Your task to perform on an android device: visit the assistant section in the google photos Image 0: 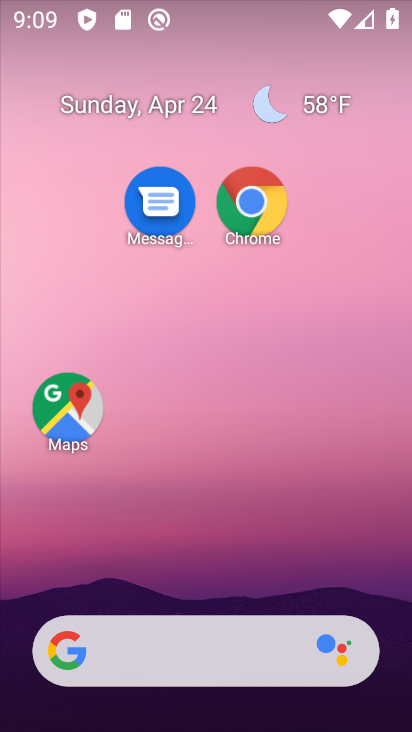
Step 0: drag from (225, 707) to (220, 115)
Your task to perform on an android device: visit the assistant section in the google photos Image 1: 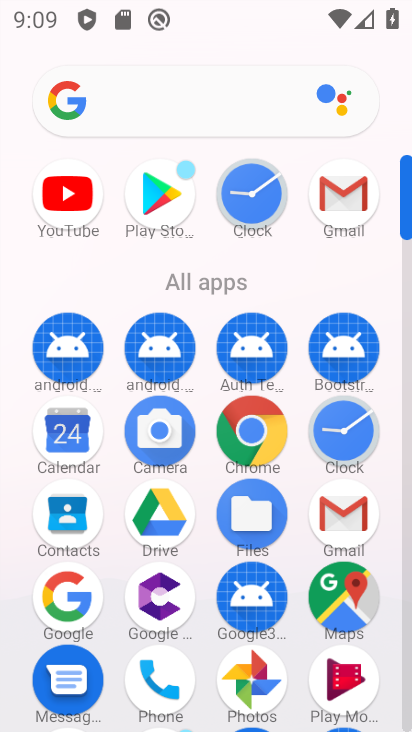
Step 1: click (254, 668)
Your task to perform on an android device: visit the assistant section in the google photos Image 2: 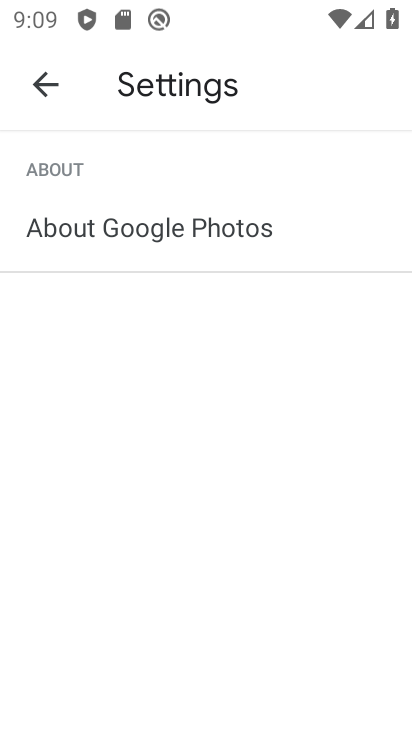
Step 2: click (40, 80)
Your task to perform on an android device: visit the assistant section in the google photos Image 3: 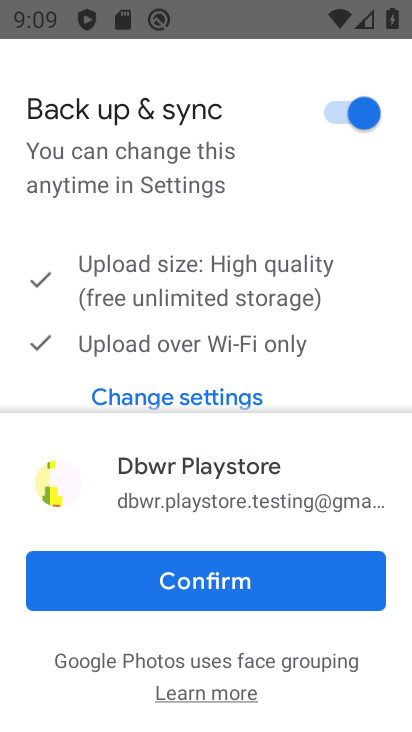
Step 3: click (182, 583)
Your task to perform on an android device: visit the assistant section in the google photos Image 4: 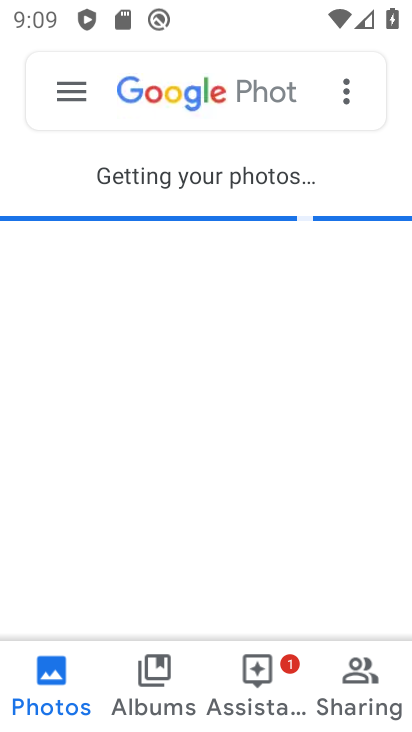
Step 4: click (247, 679)
Your task to perform on an android device: visit the assistant section in the google photos Image 5: 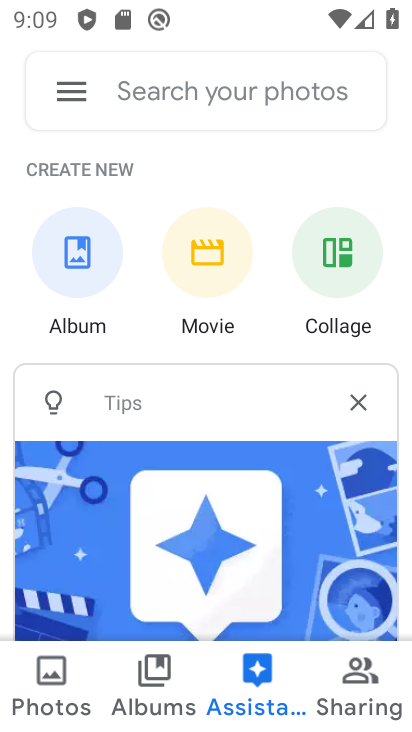
Step 5: task complete